Your task to perform on an android device: Open Youtube and go to the subscriptions tab Image 0: 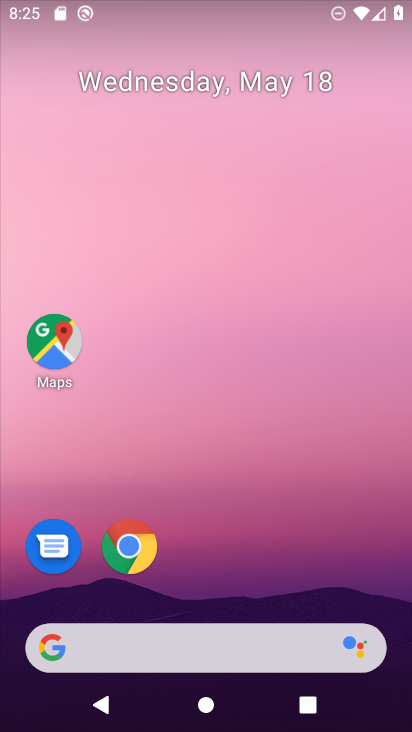
Step 0: drag from (260, 668) to (404, 106)
Your task to perform on an android device: Open Youtube and go to the subscriptions tab Image 1: 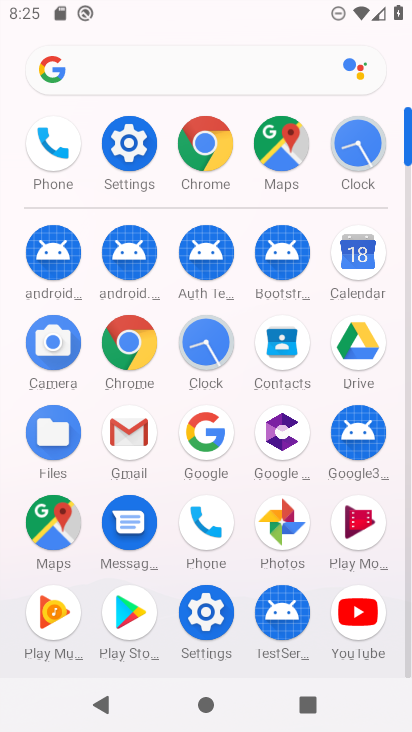
Step 1: click (355, 658)
Your task to perform on an android device: Open Youtube and go to the subscriptions tab Image 2: 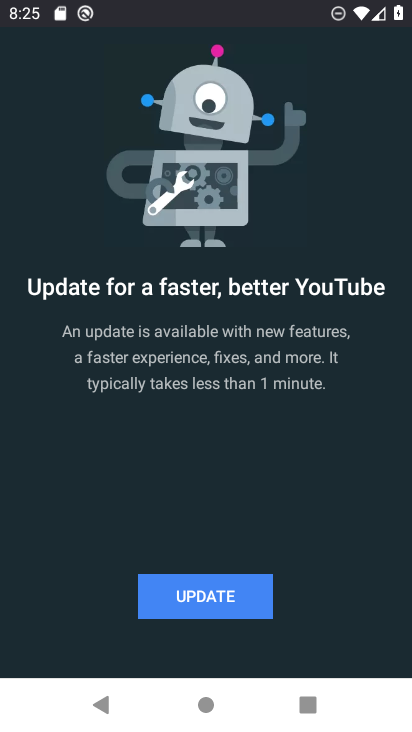
Step 2: click (222, 609)
Your task to perform on an android device: Open Youtube and go to the subscriptions tab Image 3: 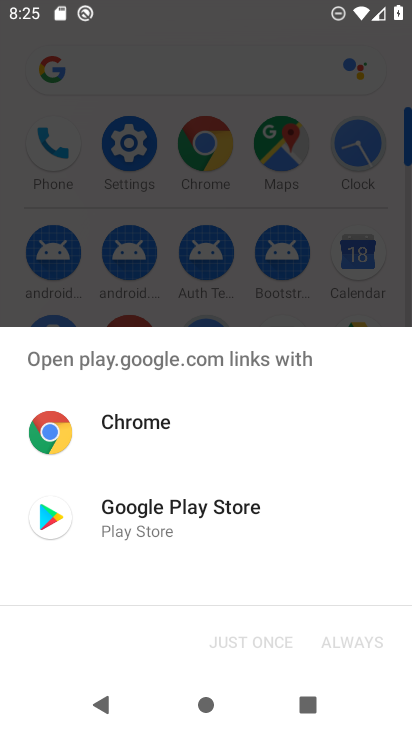
Step 3: click (131, 532)
Your task to perform on an android device: Open Youtube and go to the subscriptions tab Image 4: 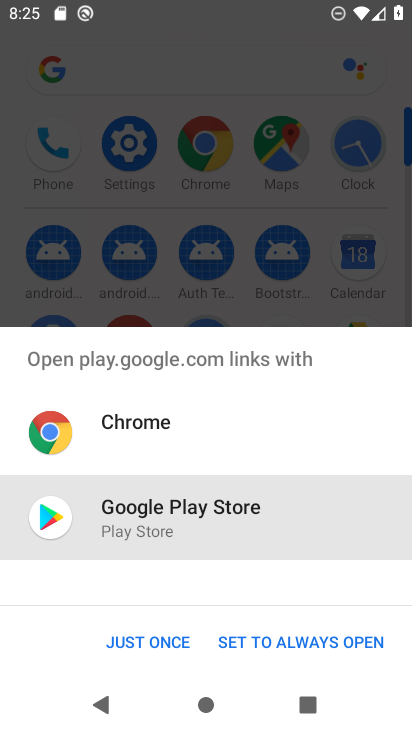
Step 4: click (142, 649)
Your task to perform on an android device: Open Youtube and go to the subscriptions tab Image 5: 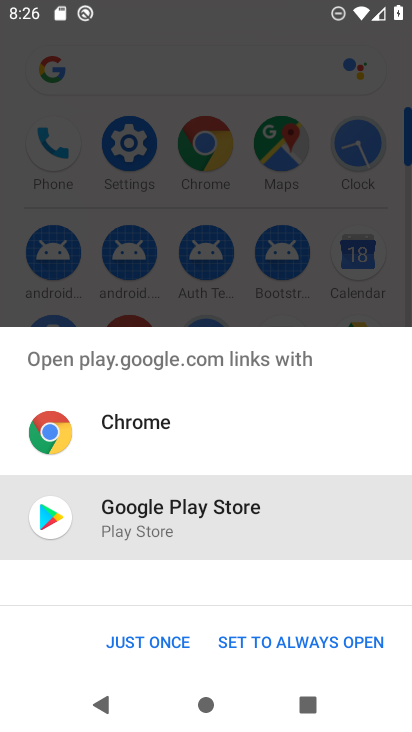
Step 5: click (169, 635)
Your task to perform on an android device: Open Youtube and go to the subscriptions tab Image 6: 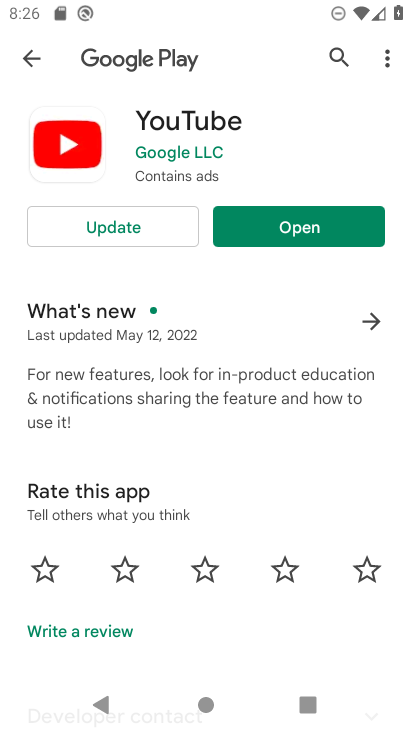
Step 6: click (121, 232)
Your task to perform on an android device: Open Youtube and go to the subscriptions tab Image 7: 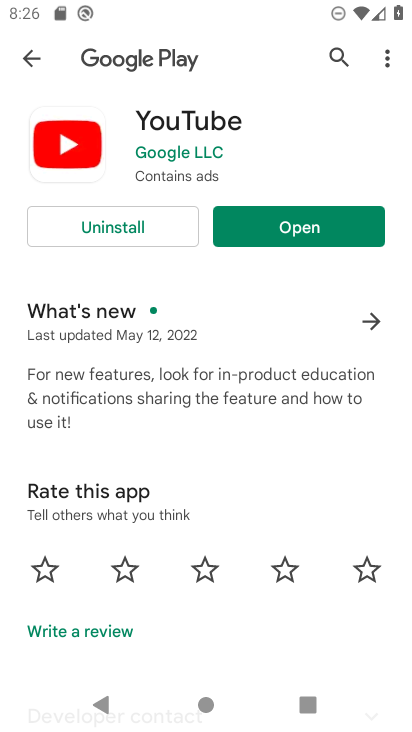
Step 7: click (281, 230)
Your task to perform on an android device: Open Youtube and go to the subscriptions tab Image 8: 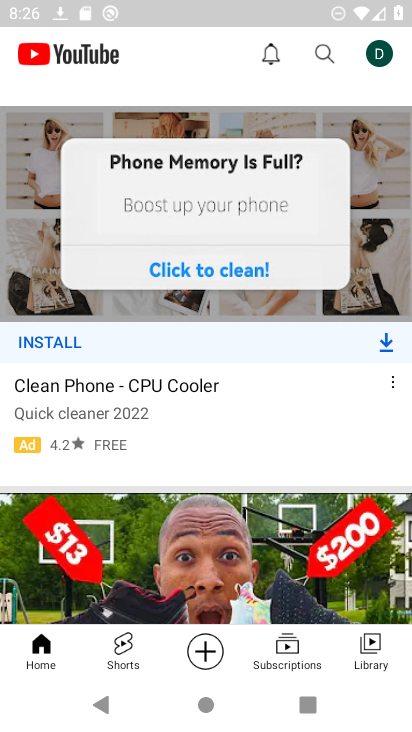
Step 8: click (291, 661)
Your task to perform on an android device: Open Youtube and go to the subscriptions tab Image 9: 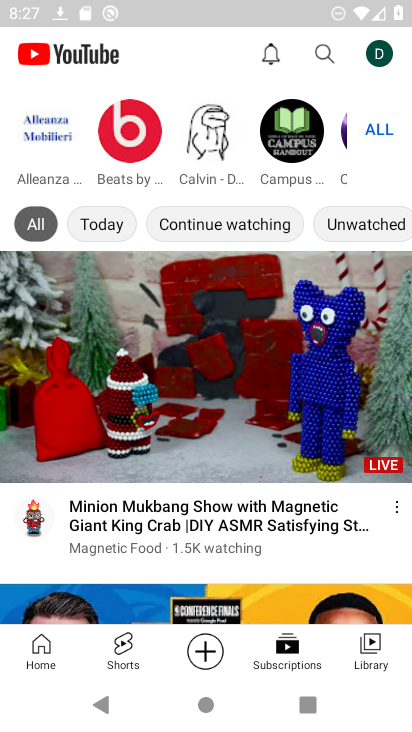
Step 9: task complete